Your task to perform on an android device: toggle notification dots Image 0: 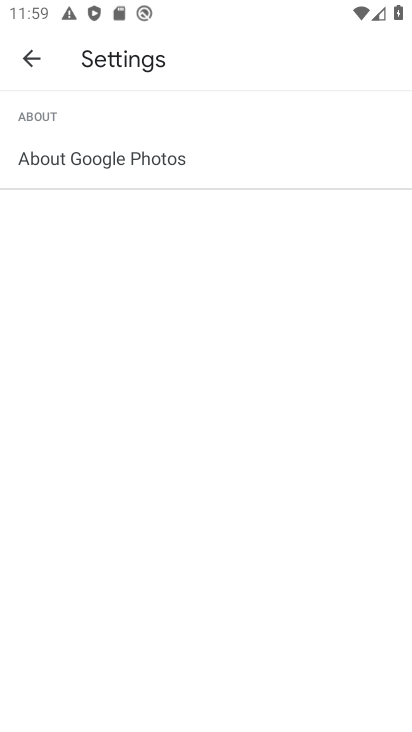
Step 0: press home button
Your task to perform on an android device: toggle notification dots Image 1: 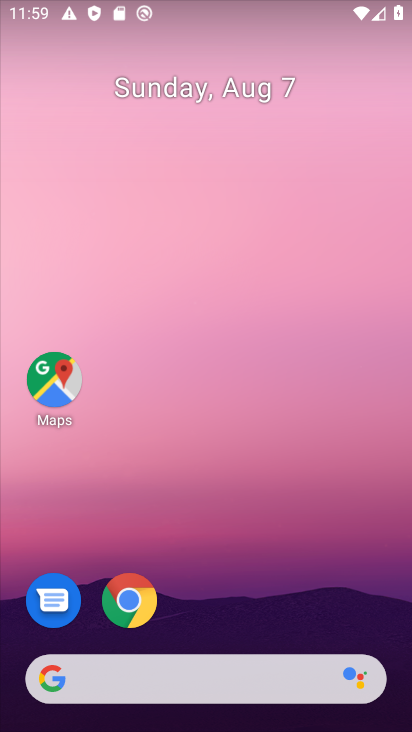
Step 1: drag from (196, 592) to (241, 72)
Your task to perform on an android device: toggle notification dots Image 2: 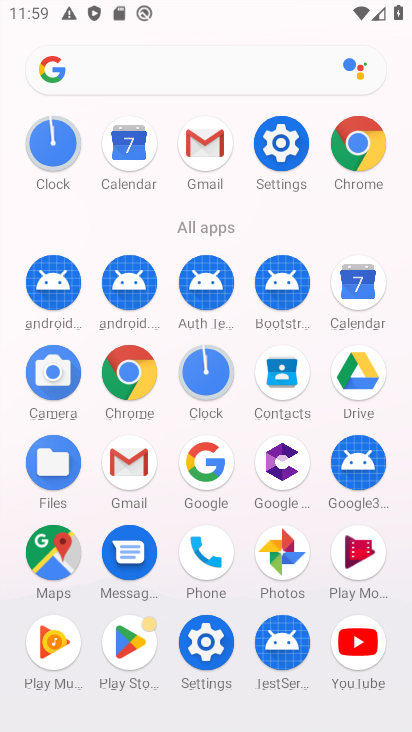
Step 2: click (292, 170)
Your task to perform on an android device: toggle notification dots Image 3: 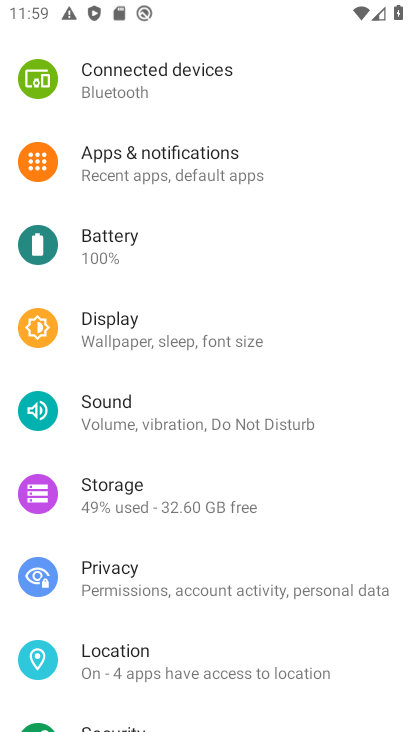
Step 3: click (324, 171)
Your task to perform on an android device: toggle notification dots Image 4: 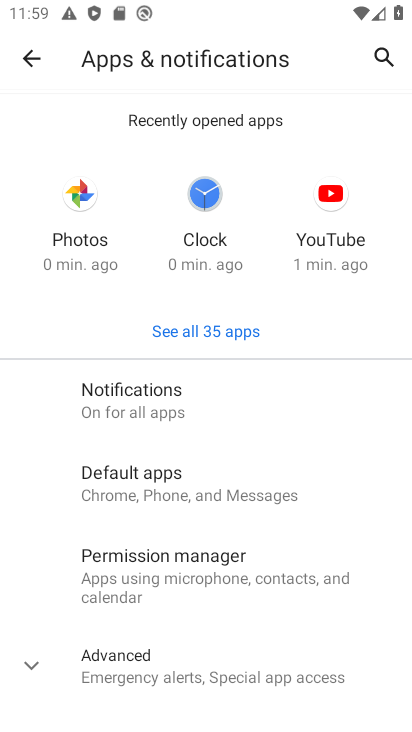
Step 4: click (146, 395)
Your task to perform on an android device: toggle notification dots Image 5: 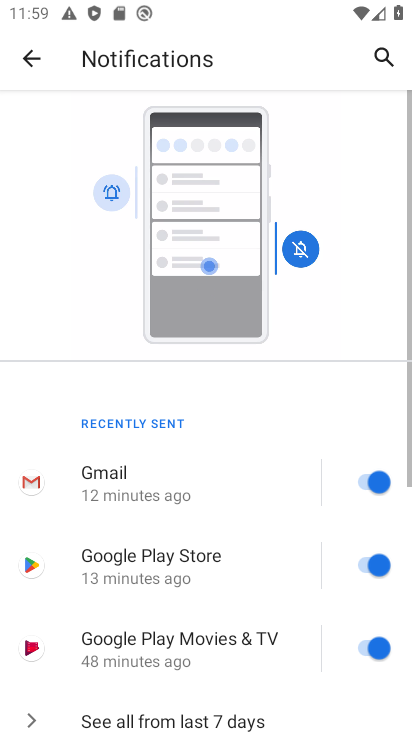
Step 5: drag from (154, 614) to (158, 223)
Your task to perform on an android device: toggle notification dots Image 6: 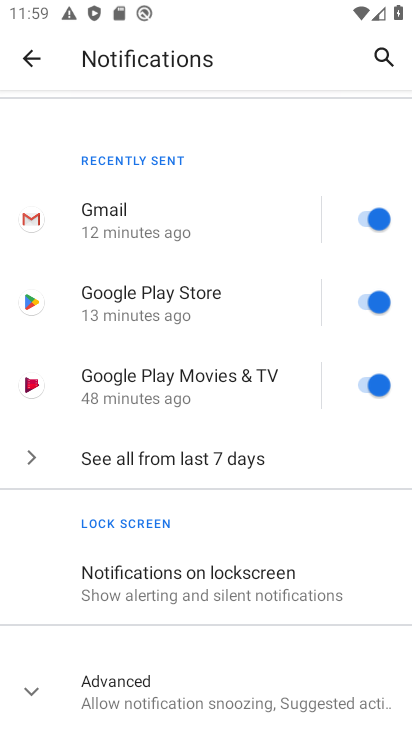
Step 6: click (162, 700)
Your task to perform on an android device: toggle notification dots Image 7: 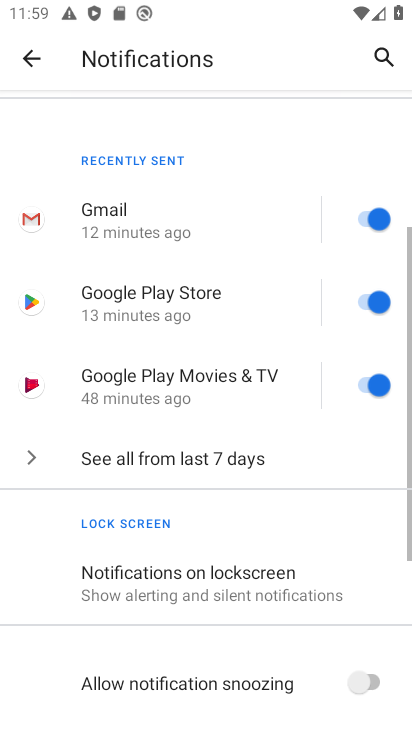
Step 7: drag from (185, 699) to (185, 181)
Your task to perform on an android device: toggle notification dots Image 8: 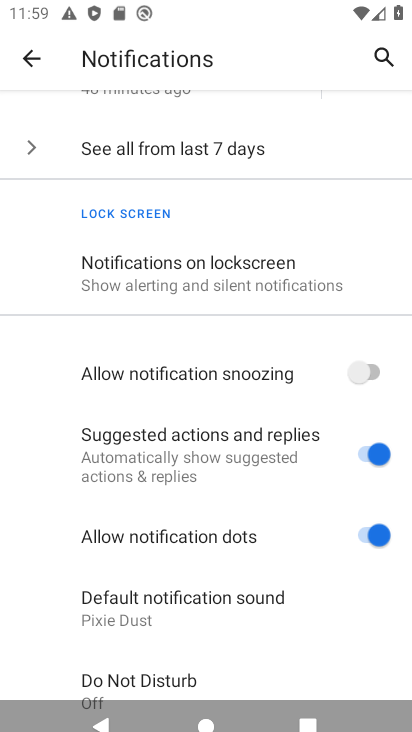
Step 8: click (363, 542)
Your task to perform on an android device: toggle notification dots Image 9: 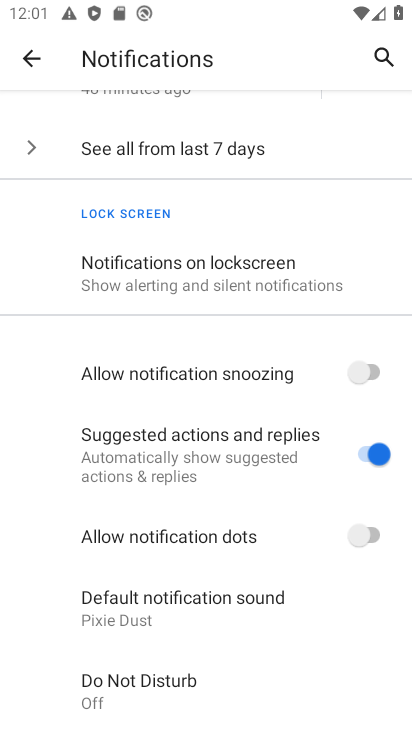
Step 9: task complete